Your task to perform on an android device: turn off notifications in google photos Image 0: 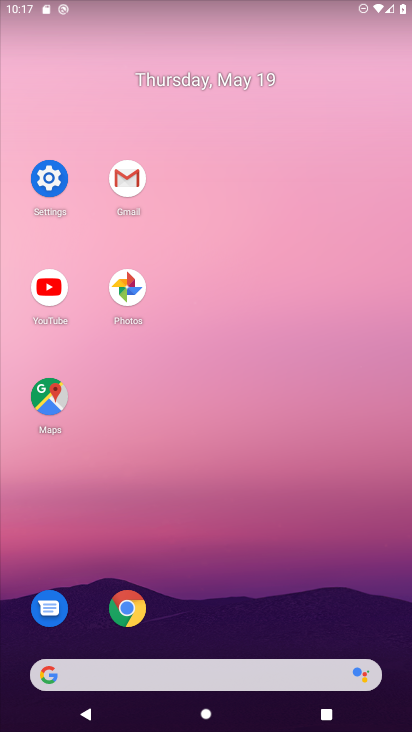
Step 0: click (128, 295)
Your task to perform on an android device: turn off notifications in google photos Image 1: 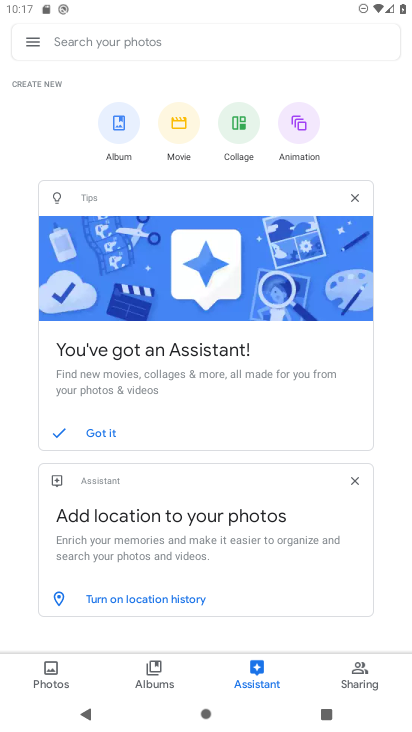
Step 1: click (29, 40)
Your task to perform on an android device: turn off notifications in google photos Image 2: 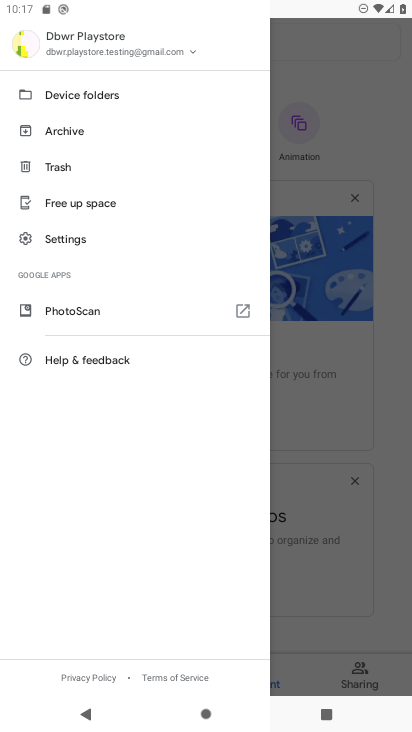
Step 2: click (103, 224)
Your task to perform on an android device: turn off notifications in google photos Image 3: 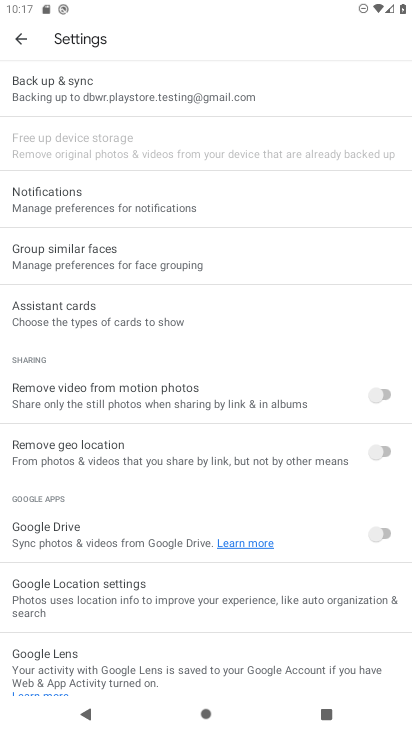
Step 3: click (117, 207)
Your task to perform on an android device: turn off notifications in google photos Image 4: 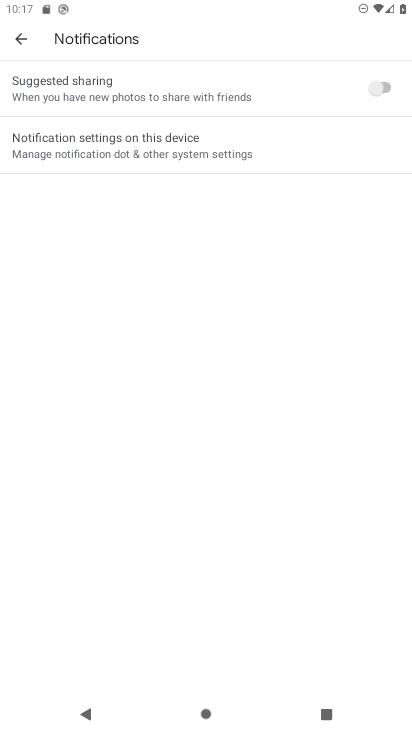
Step 4: click (224, 133)
Your task to perform on an android device: turn off notifications in google photos Image 5: 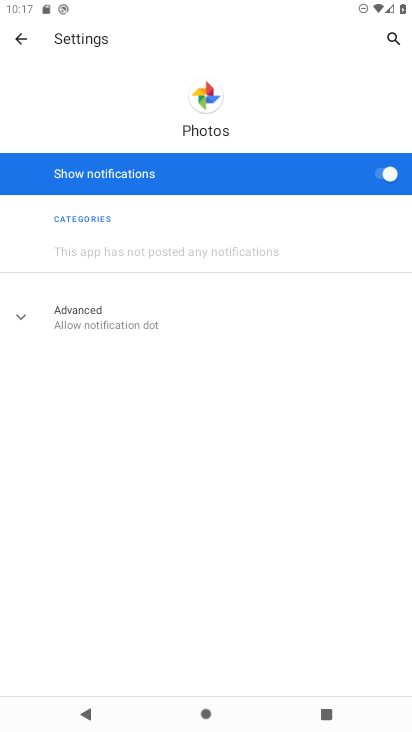
Step 5: click (389, 173)
Your task to perform on an android device: turn off notifications in google photos Image 6: 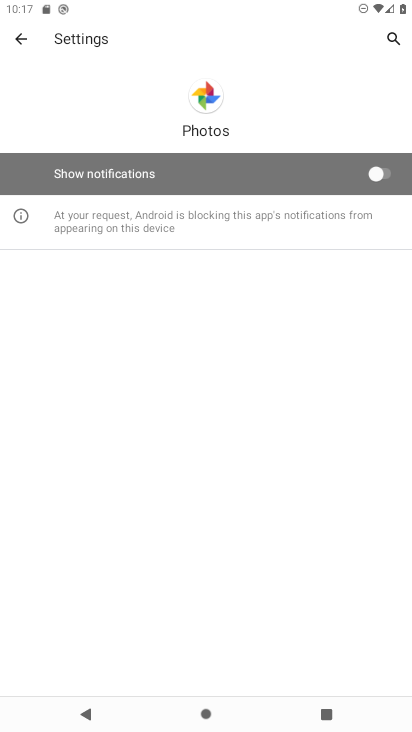
Step 6: task complete